Your task to perform on an android device: Toggle the flashlight Image 0: 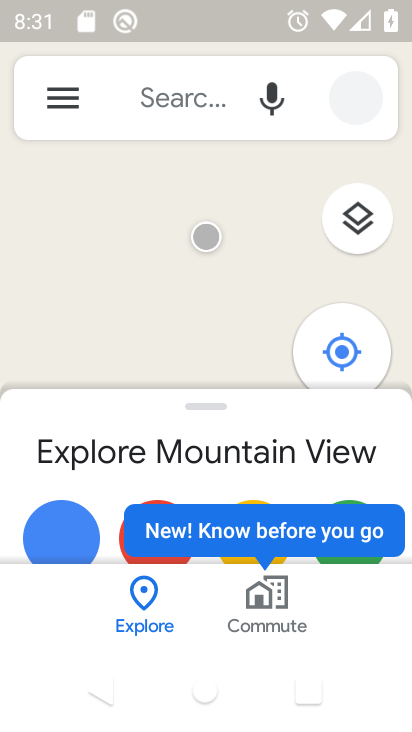
Step 0: drag from (238, 10) to (258, 400)
Your task to perform on an android device: Toggle the flashlight Image 1: 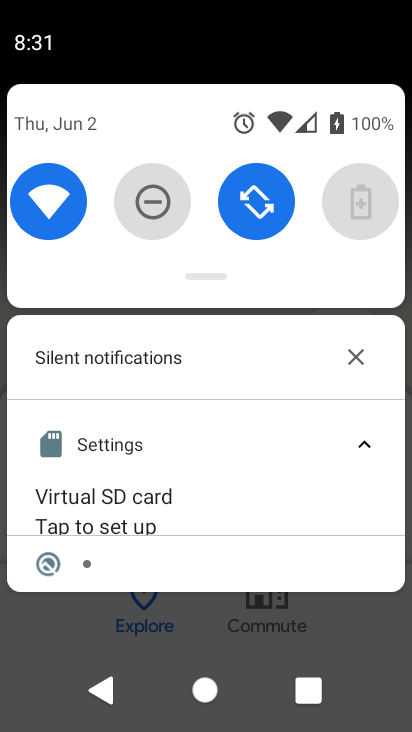
Step 1: task complete